Your task to perform on an android device: find snoozed emails in the gmail app Image 0: 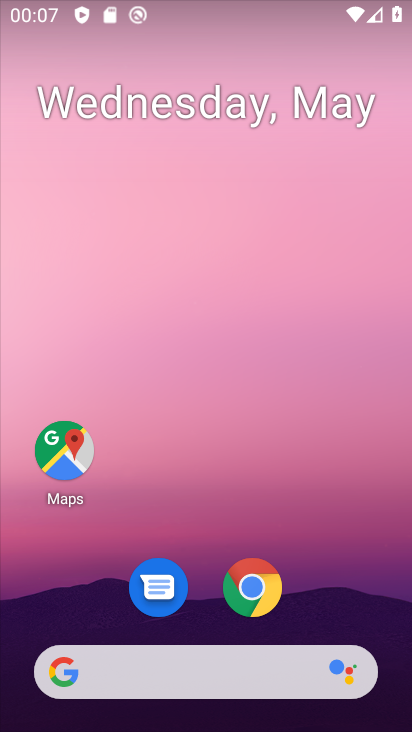
Step 0: drag from (357, 532) to (341, 159)
Your task to perform on an android device: find snoozed emails in the gmail app Image 1: 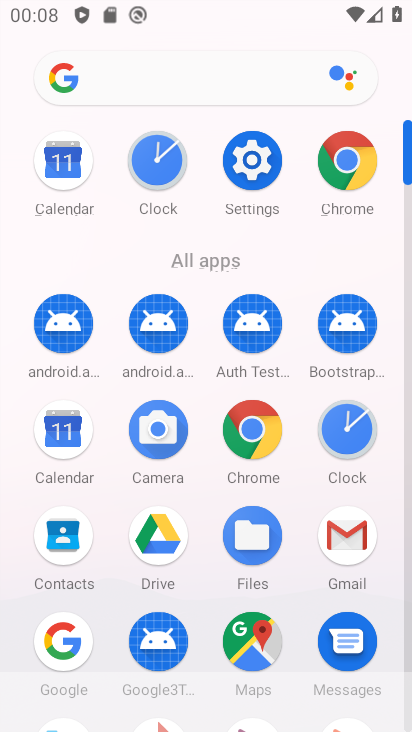
Step 1: click (351, 523)
Your task to perform on an android device: find snoozed emails in the gmail app Image 2: 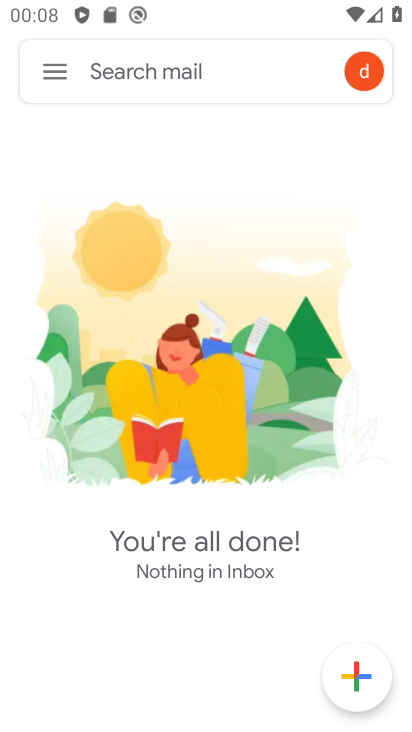
Step 2: click (62, 68)
Your task to perform on an android device: find snoozed emails in the gmail app Image 3: 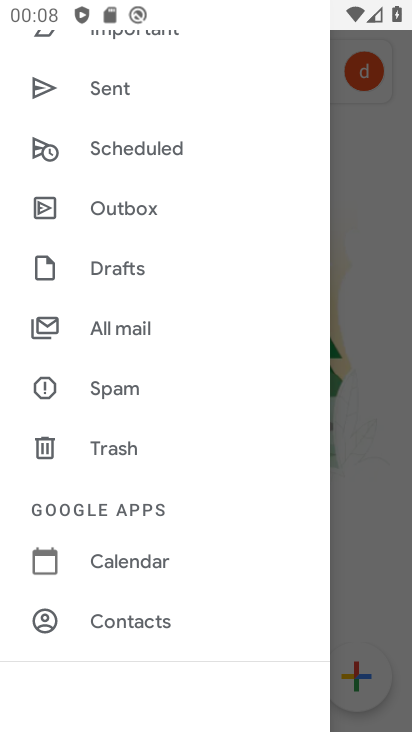
Step 3: drag from (124, 123) to (139, 397)
Your task to perform on an android device: find snoozed emails in the gmail app Image 4: 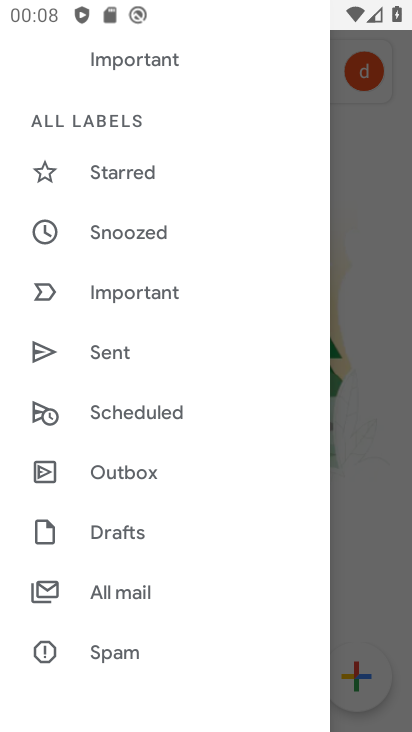
Step 4: click (107, 233)
Your task to perform on an android device: find snoozed emails in the gmail app Image 5: 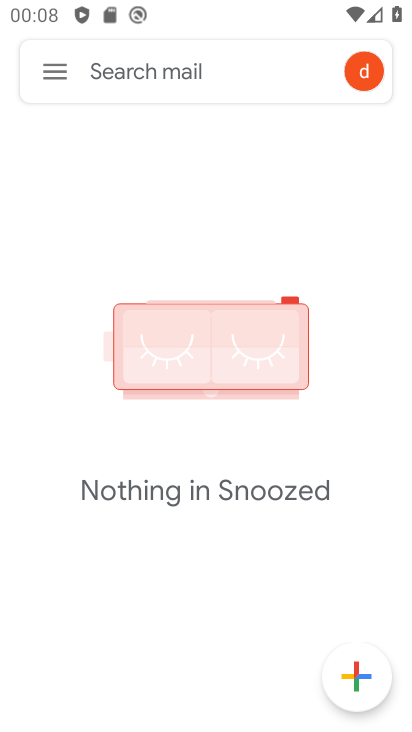
Step 5: task complete